Your task to perform on an android device: Open eBay Image 0: 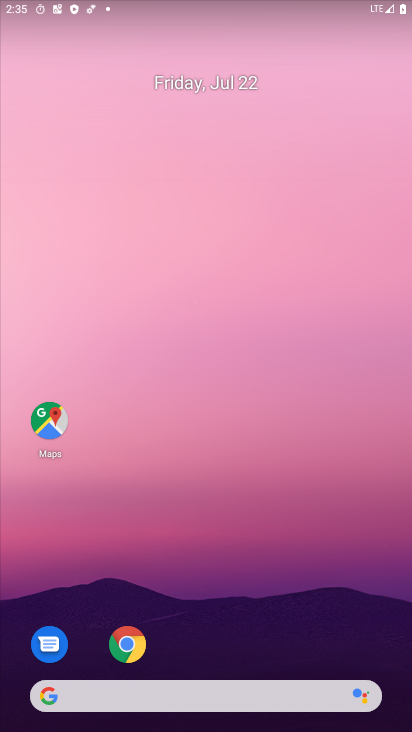
Step 0: drag from (217, 691) to (270, 145)
Your task to perform on an android device: Open eBay Image 1: 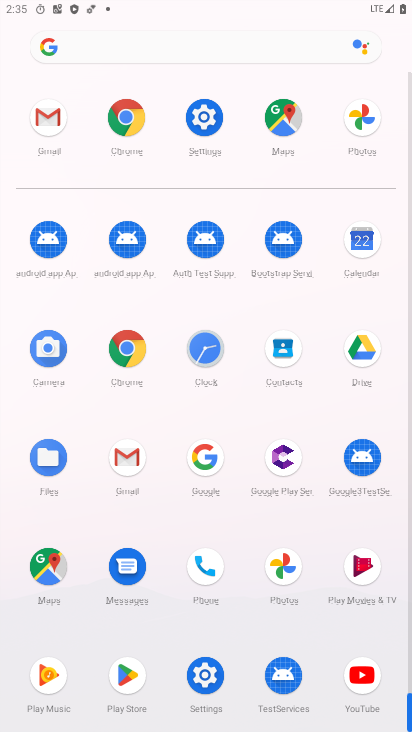
Step 1: click (125, 125)
Your task to perform on an android device: Open eBay Image 2: 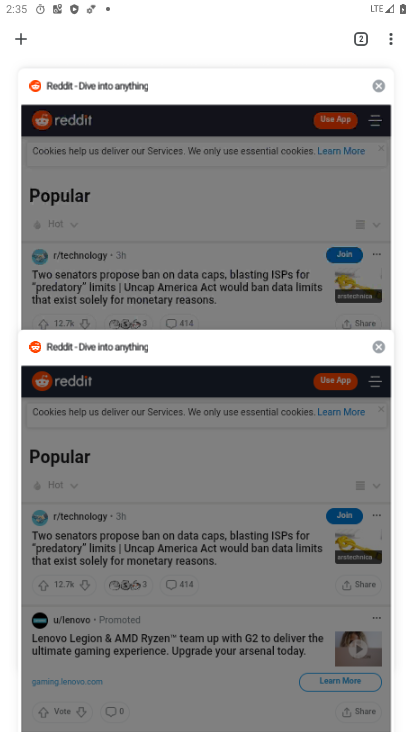
Step 2: click (28, 43)
Your task to perform on an android device: Open eBay Image 3: 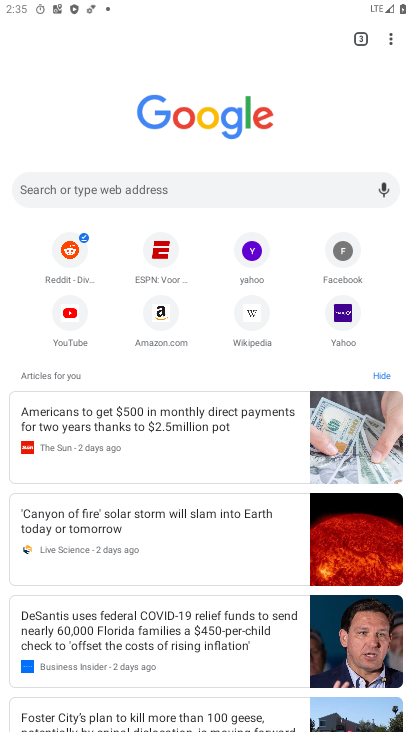
Step 3: click (215, 190)
Your task to perform on an android device: Open eBay Image 4: 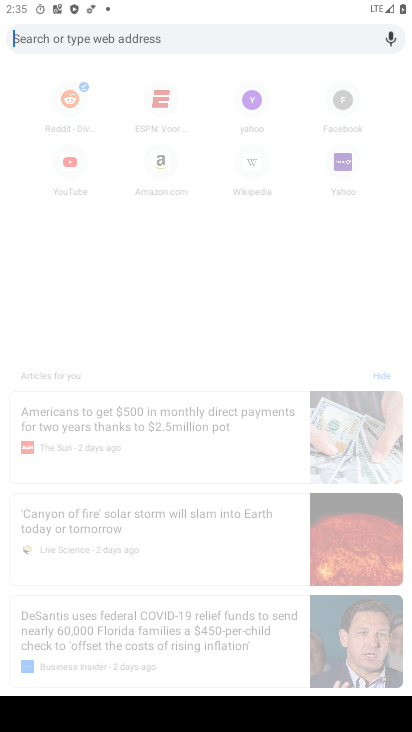
Step 4: type "ebay"
Your task to perform on an android device: Open eBay Image 5: 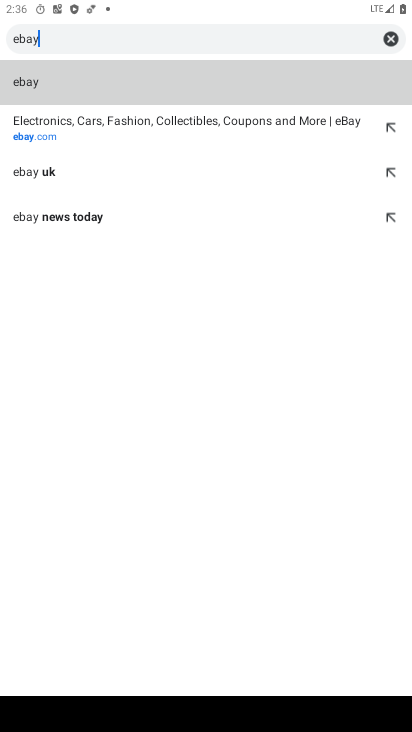
Step 5: click (187, 144)
Your task to perform on an android device: Open eBay Image 6: 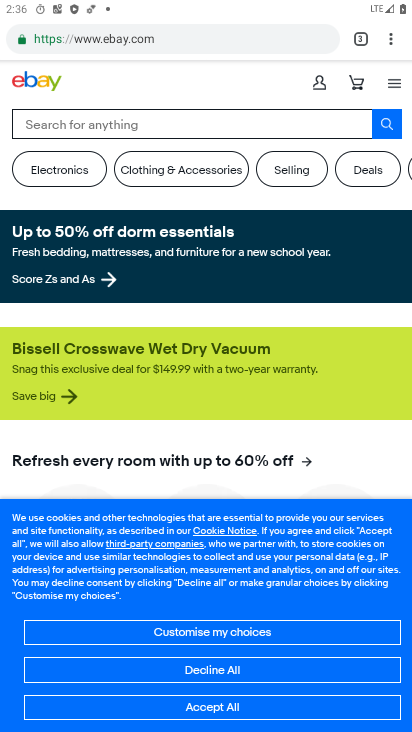
Step 6: task complete